Your task to perform on an android device: clear history in the chrome app Image 0: 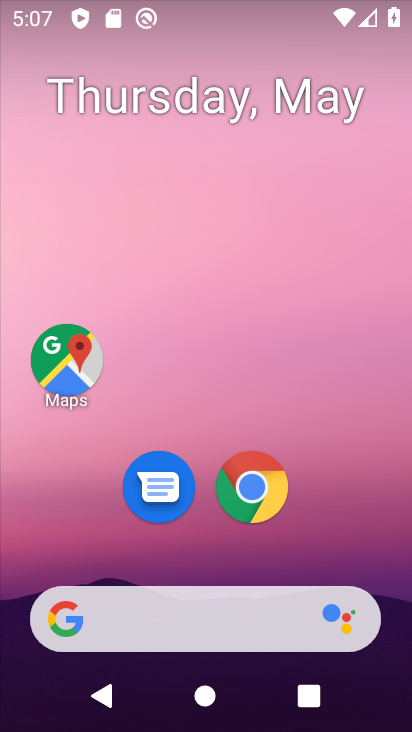
Step 0: click (253, 492)
Your task to perform on an android device: clear history in the chrome app Image 1: 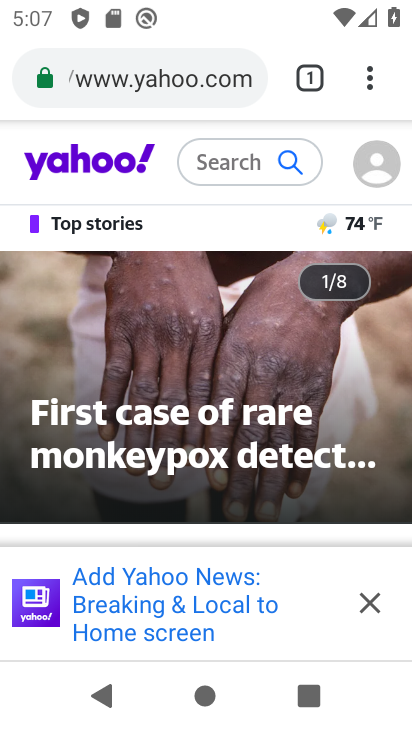
Step 1: press home button
Your task to perform on an android device: clear history in the chrome app Image 2: 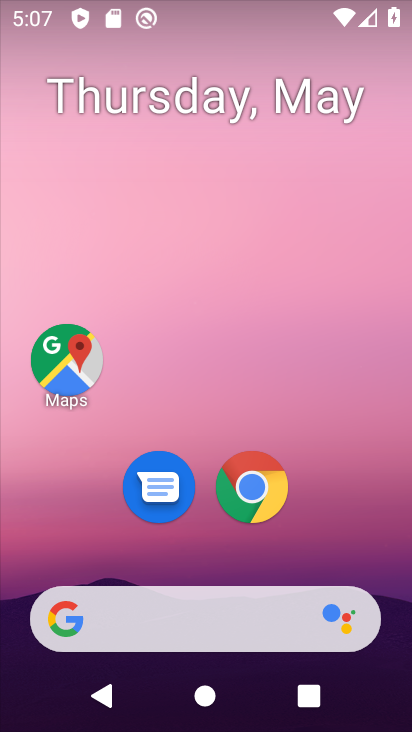
Step 2: click (252, 483)
Your task to perform on an android device: clear history in the chrome app Image 3: 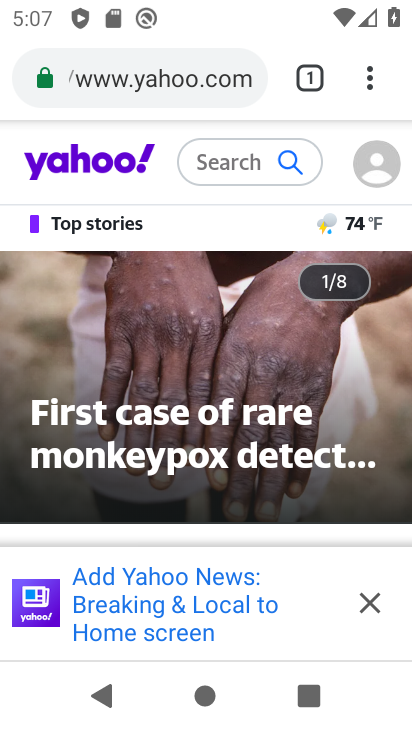
Step 3: click (367, 78)
Your task to perform on an android device: clear history in the chrome app Image 4: 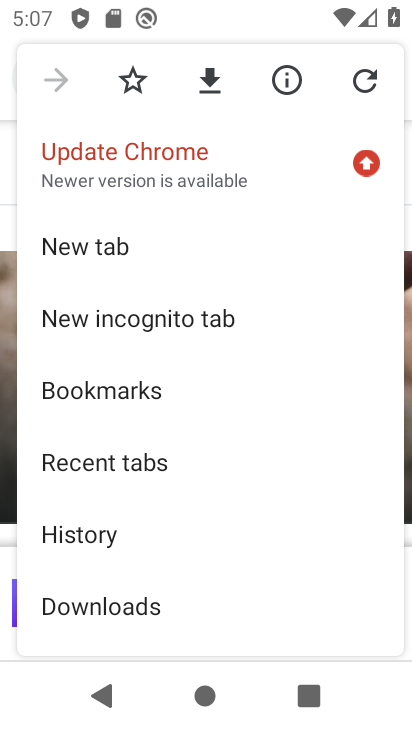
Step 4: click (114, 524)
Your task to perform on an android device: clear history in the chrome app Image 5: 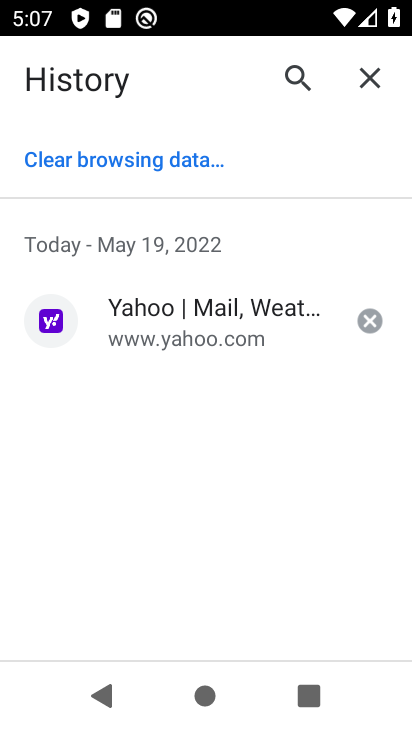
Step 5: click (159, 156)
Your task to perform on an android device: clear history in the chrome app Image 6: 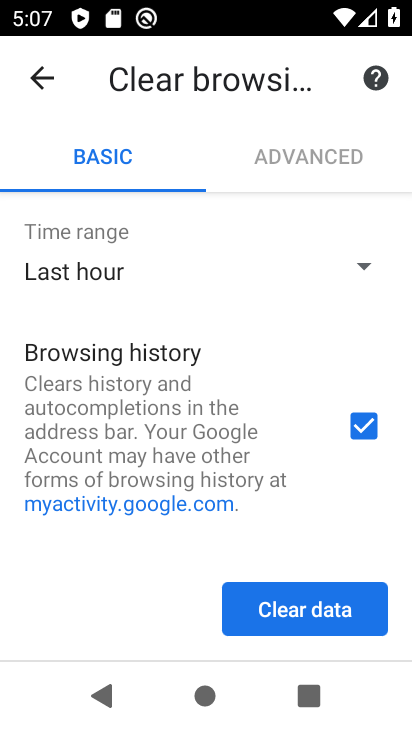
Step 6: click (303, 607)
Your task to perform on an android device: clear history in the chrome app Image 7: 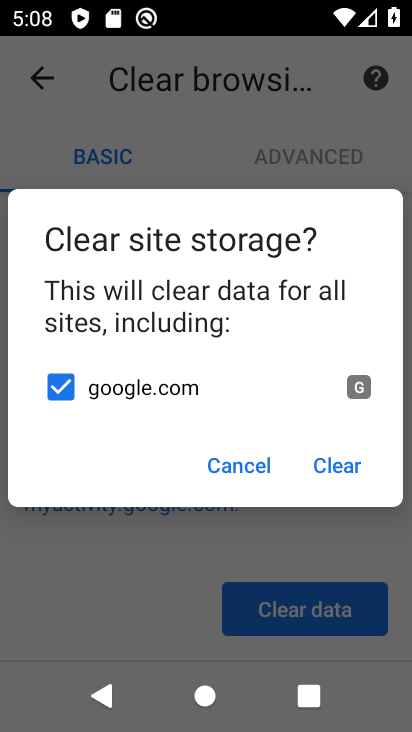
Step 7: click (342, 464)
Your task to perform on an android device: clear history in the chrome app Image 8: 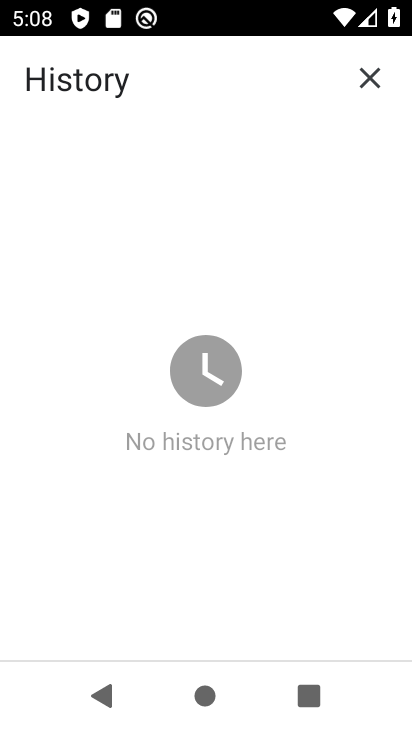
Step 8: task complete